Your task to perform on an android device: Show me the best 1080p monitor on Target.com Image 0: 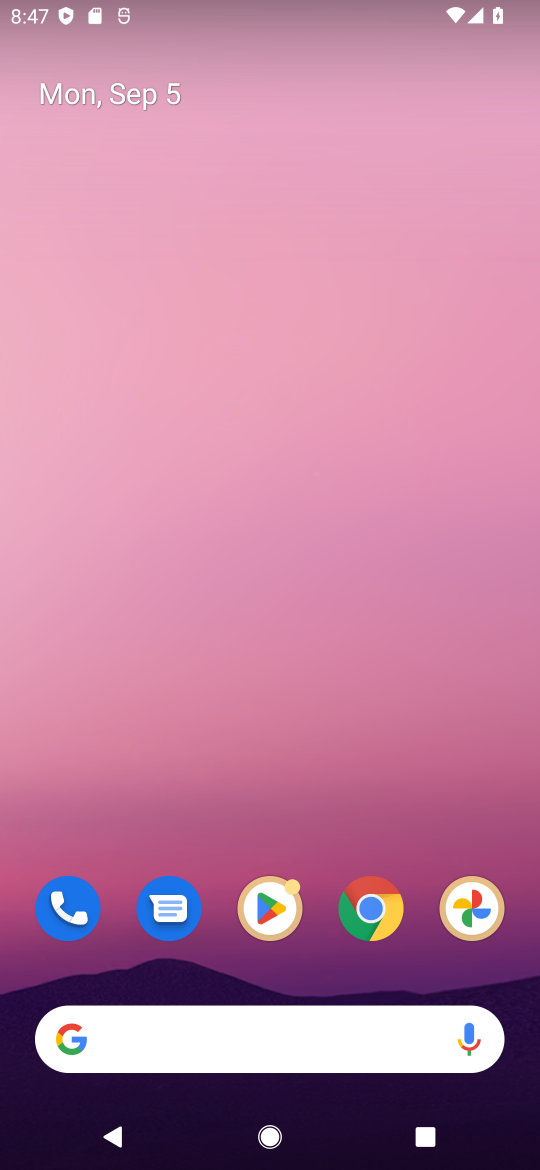
Step 0: drag from (307, 966) to (274, 47)
Your task to perform on an android device: Show me the best 1080p monitor on Target.com Image 1: 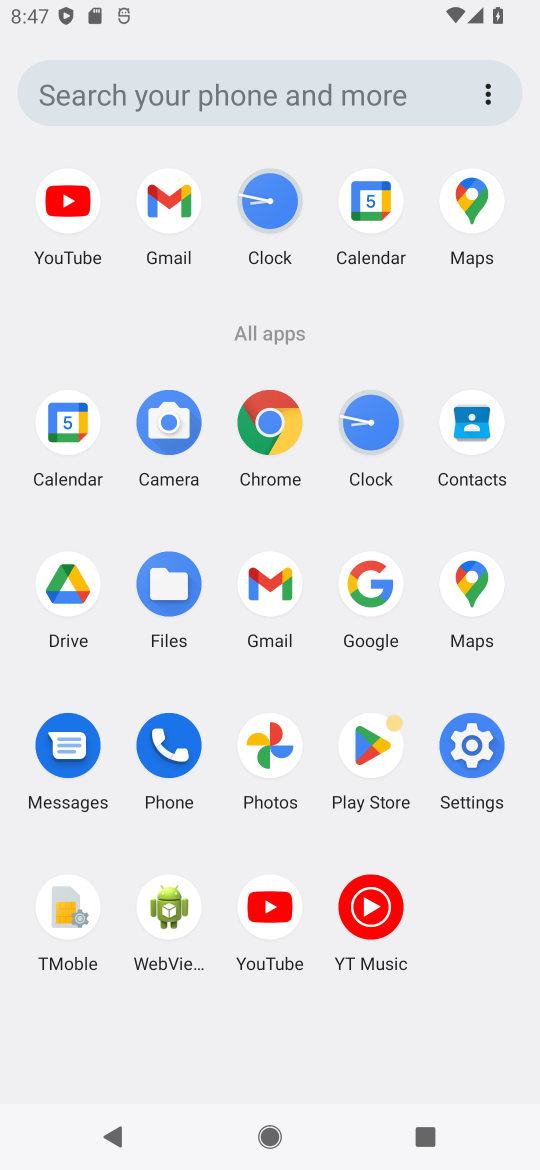
Step 1: click (260, 436)
Your task to perform on an android device: Show me the best 1080p monitor on Target.com Image 2: 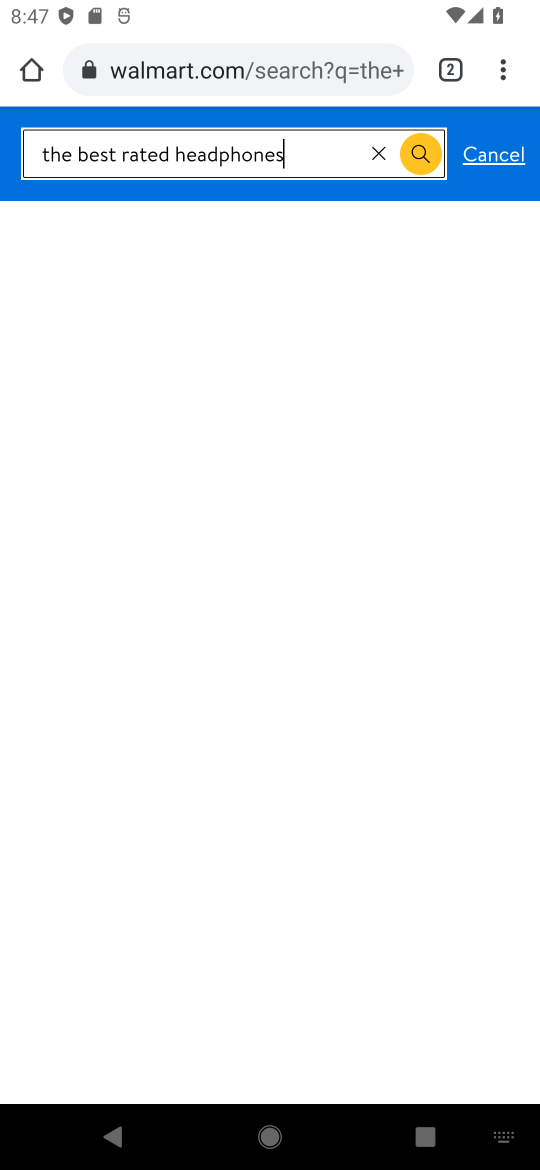
Step 2: click (454, 66)
Your task to perform on an android device: Show me the best 1080p monitor on Target.com Image 3: 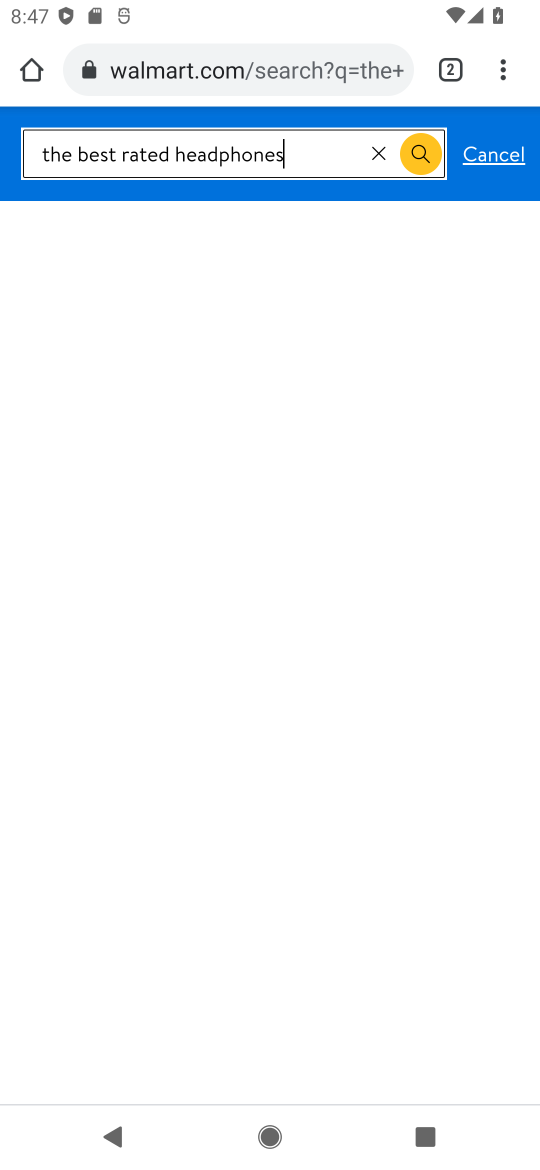
Step 3: click (456, 80)
Your task to perform on an android device: Show me the best 1080p monitor on Target.com Image 4: 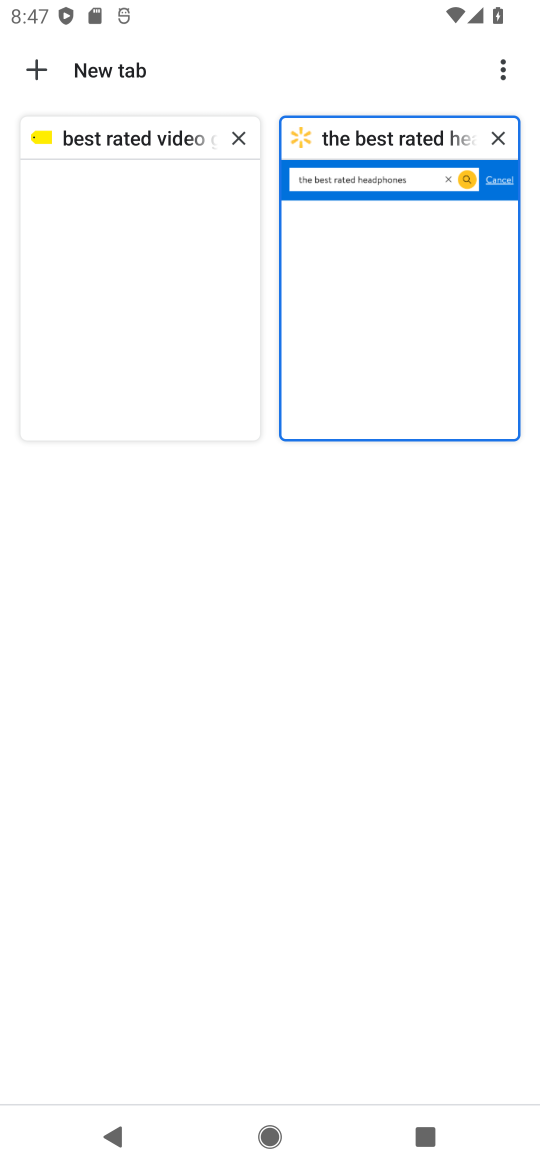
Step 4: click (54, 76)
Your task to perform on an android device: Show me the best 1080p monitor on Target.com Image 5: 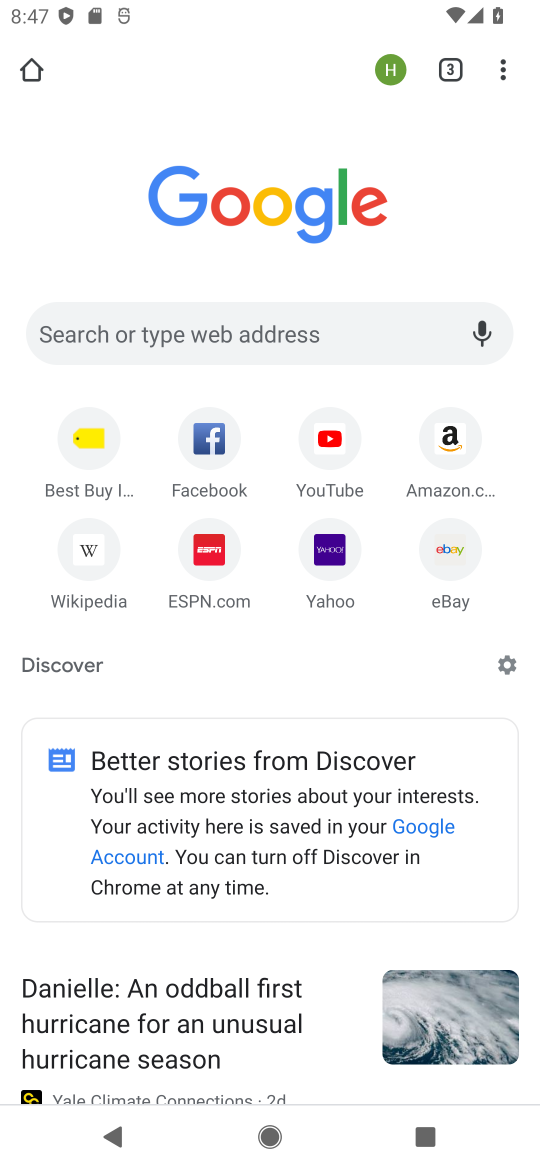
Step 5: click (203, 323)
Your task to perform on an android device: Show me the best 1080p monitor on Target.com Image 6: 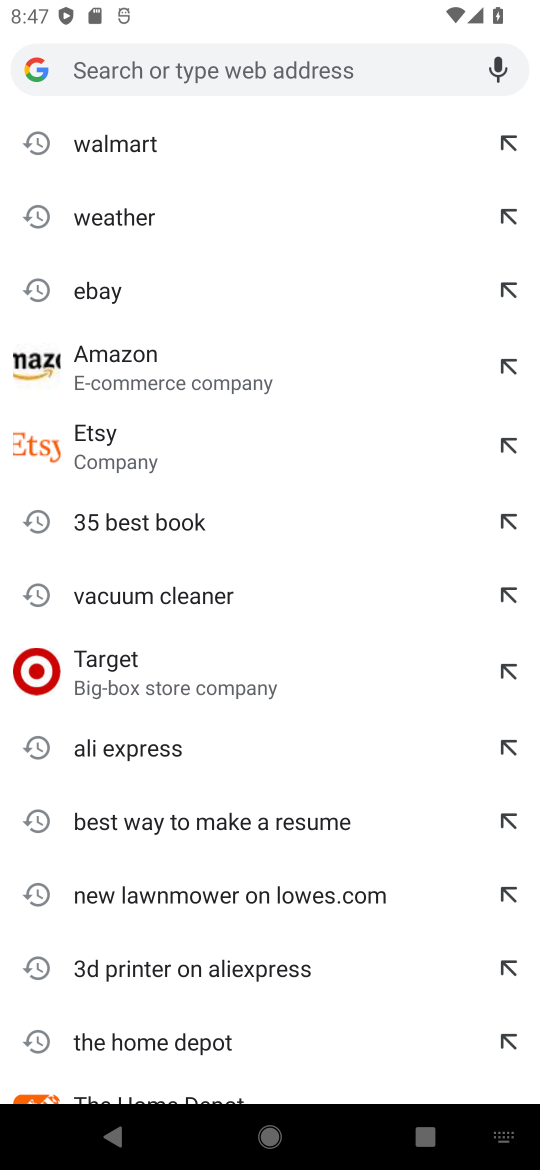
Step 6: type "Target.com"
Your task to perform on an android device: Show me the best 1080p monitor on Target.com Image 7: 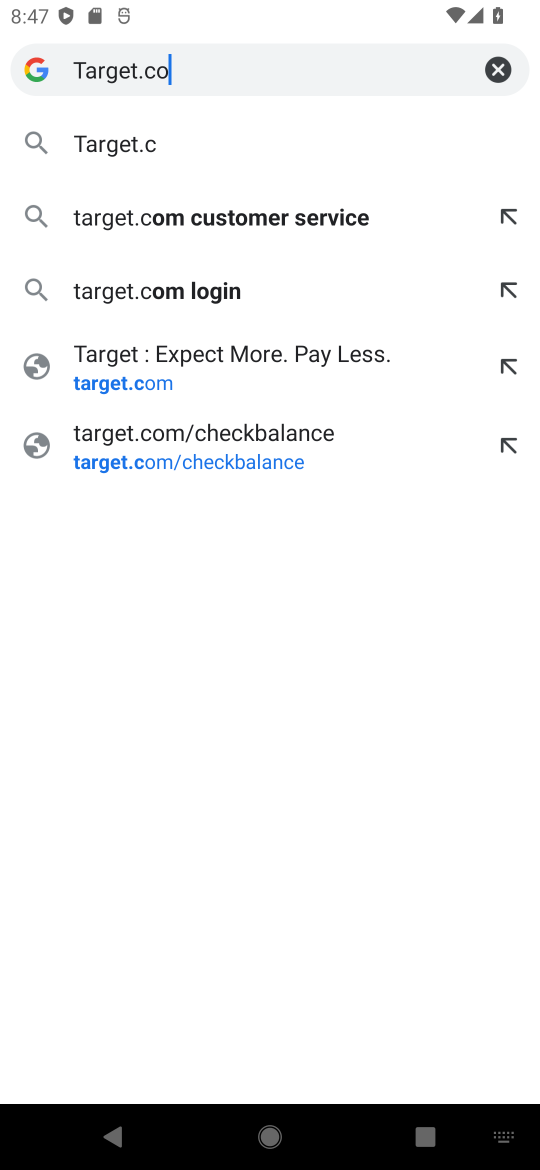
Step 7: type ""
Your task to perform on an android device: Show me the best 1080p monitor on Target.com Image 8: 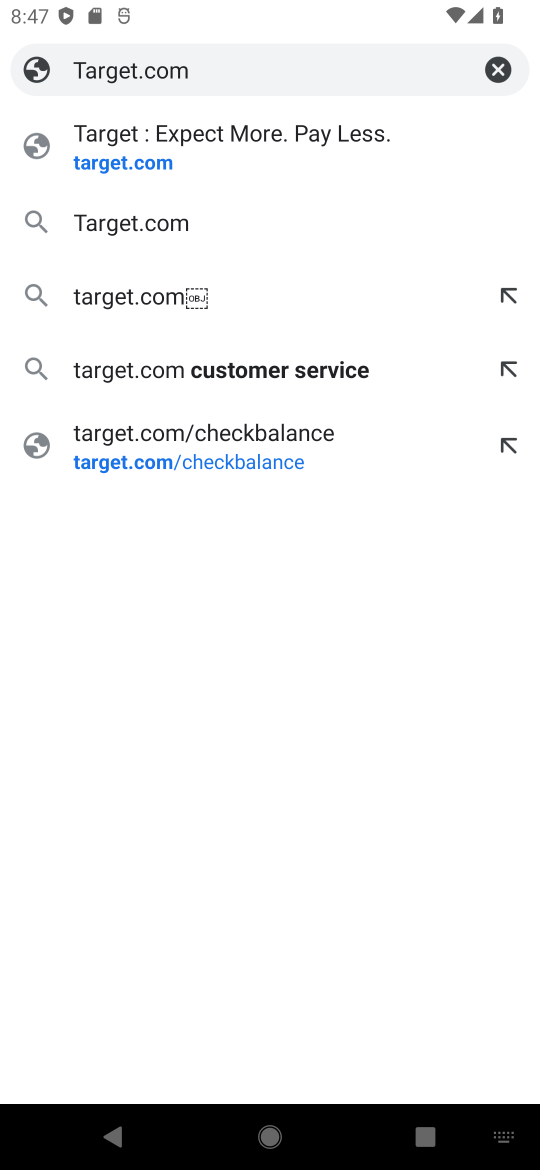
Step 8: click (170, 112)
Your task to perform on an android device: Show me the best 1080p monitor on Target.com Image 9: 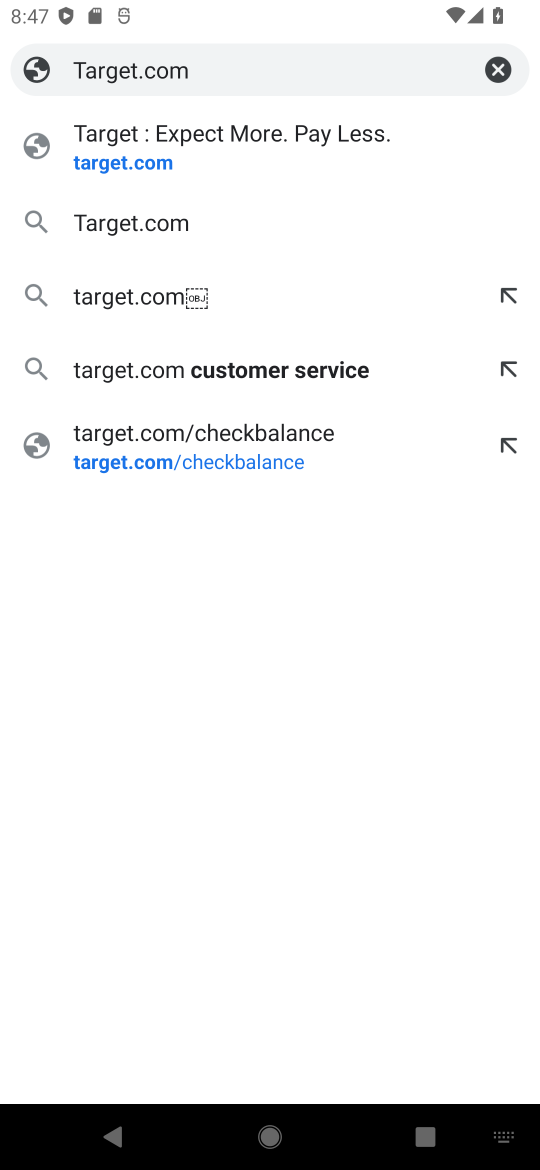
Step 9: click (163, 156)
Your task to perform on an android device: Show me the best 1080p monitor on Target.com Image 10: 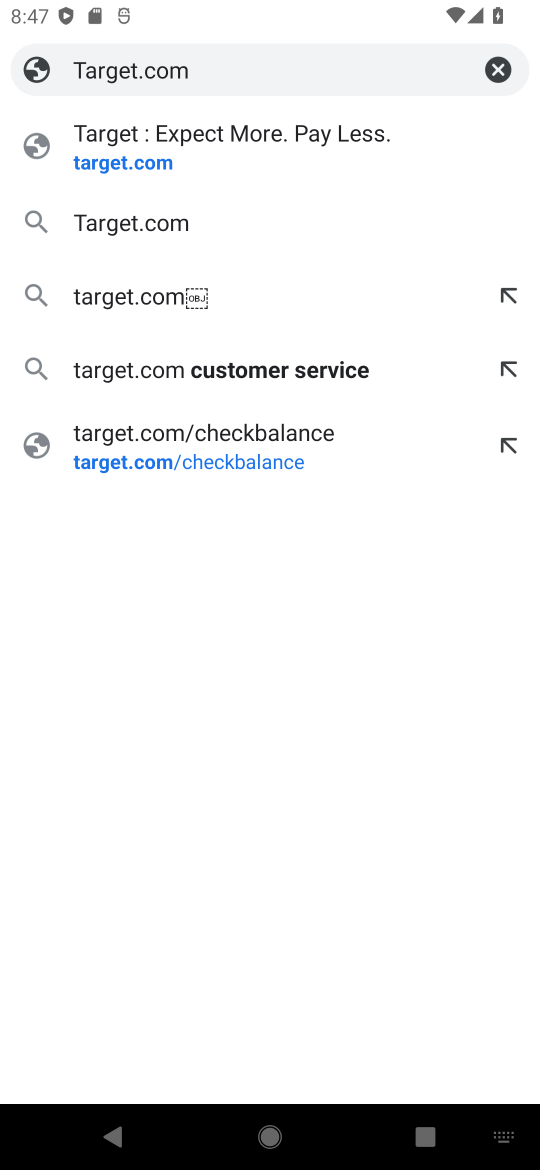
Step 10: click (163, 156)
Your task to perform on an android device: Show me the best 1080p monitor on Target.com Image 11: 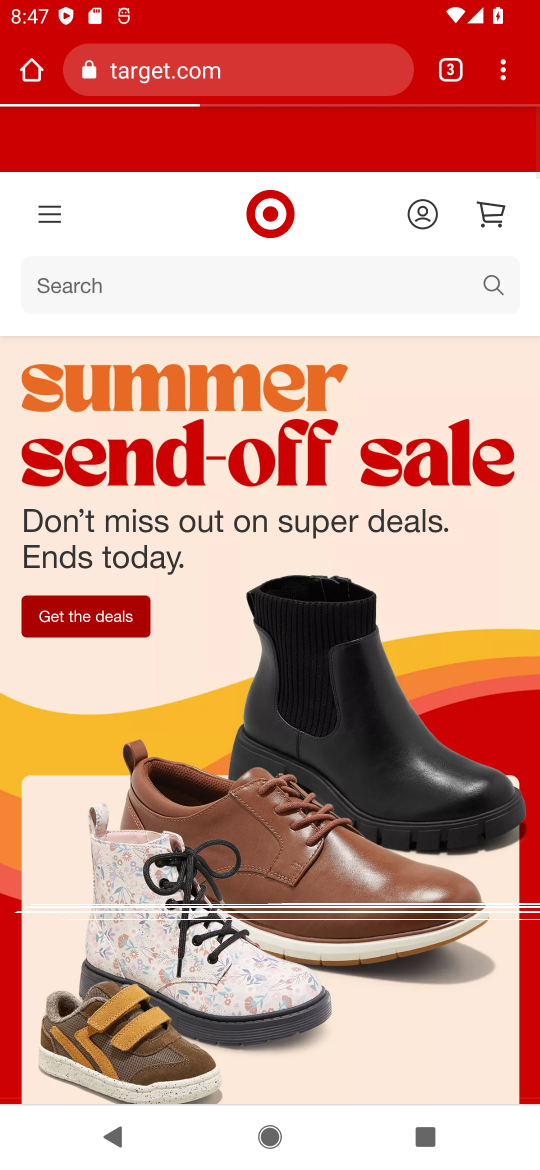
Step 11: click (209, 286)
Your task to perform on an android device: Show me the best 1080p monitor on Target.com Image 12: 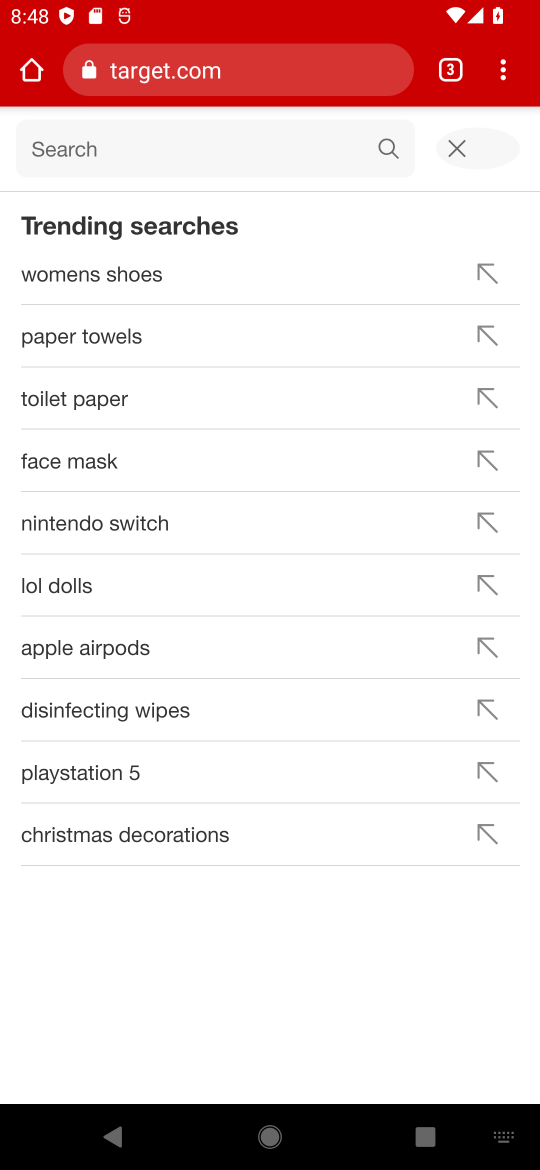
Step 12: type "the best 1080p monitor"
Your task to perform on an android device: Show me the best 1080p monitor on Target.com Image 13: 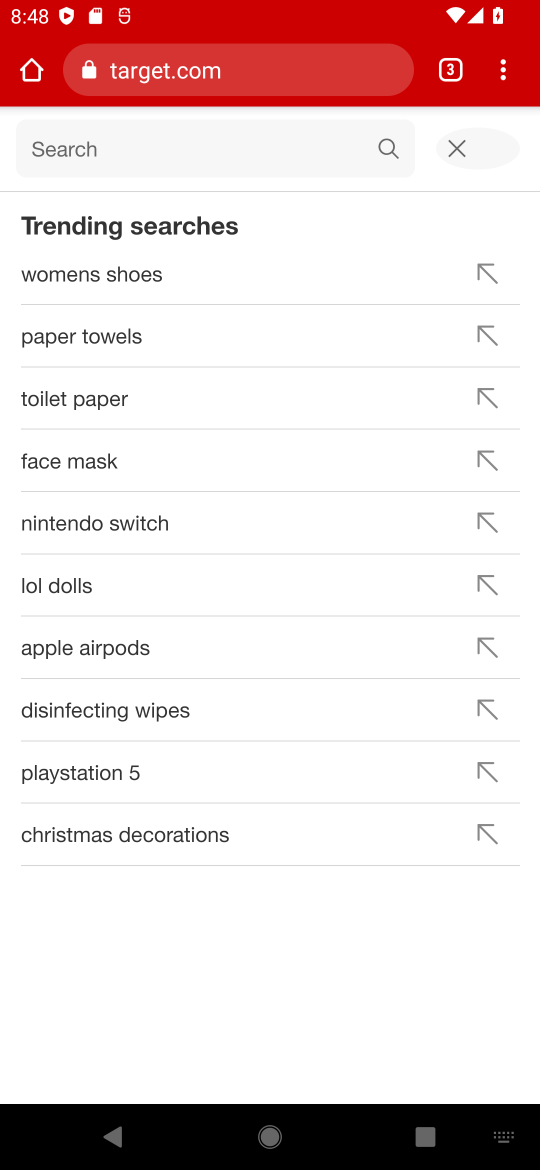
Step 13: type ""
Your task to perform on an android device: Show me the best 1080p monitor on Target.com Image 14: 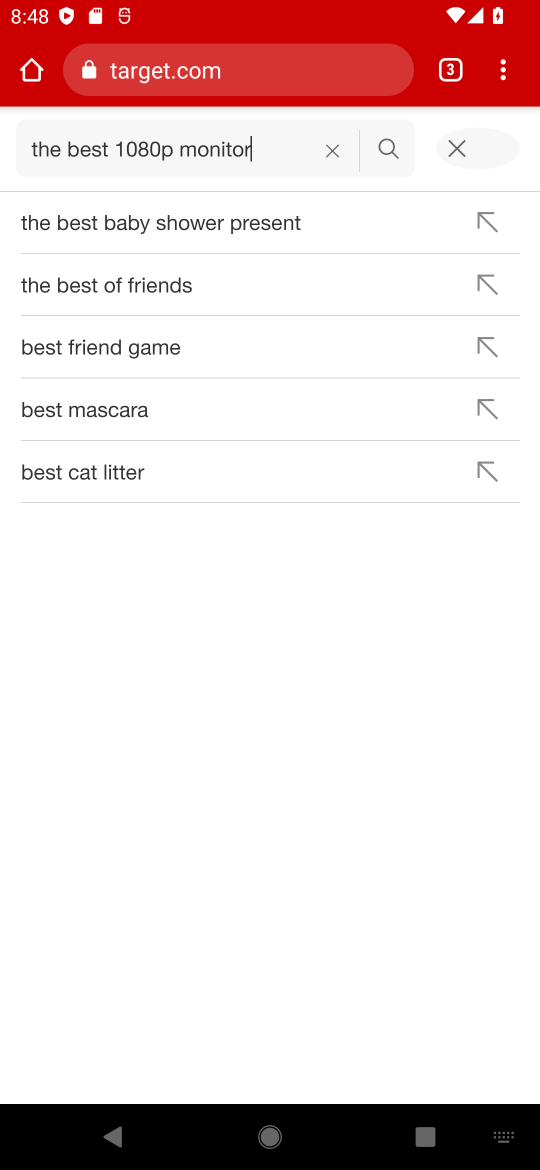
Step 14: click (382, 148)
Your task to perform on an android device: Show me the best 1080p monitor on Target.com Image 15: 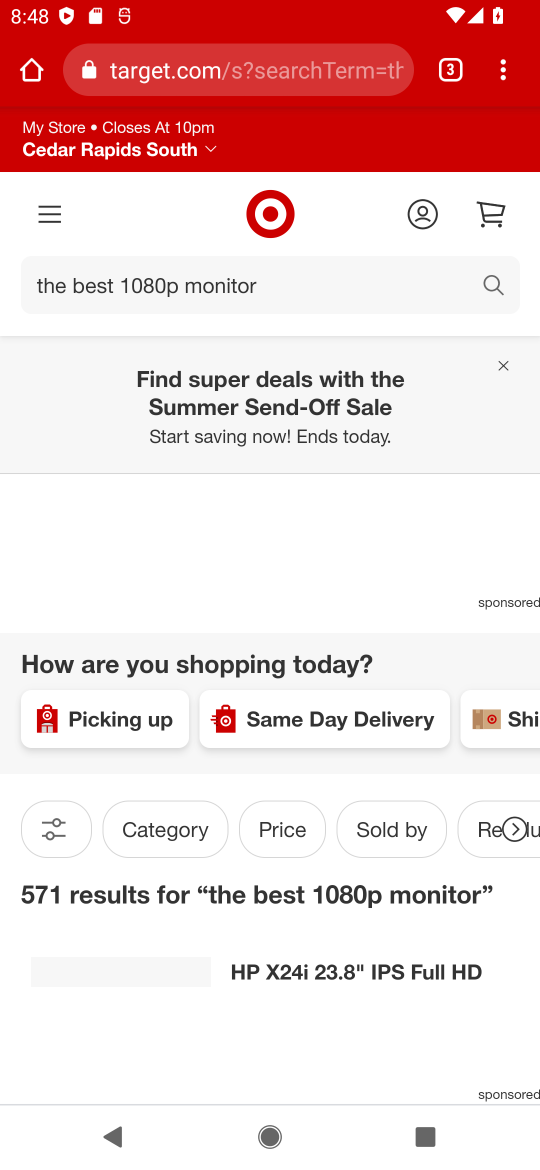
Step 15: task complete